Your task to perform on an android device: turn off data saver in the chrome app Image 0: 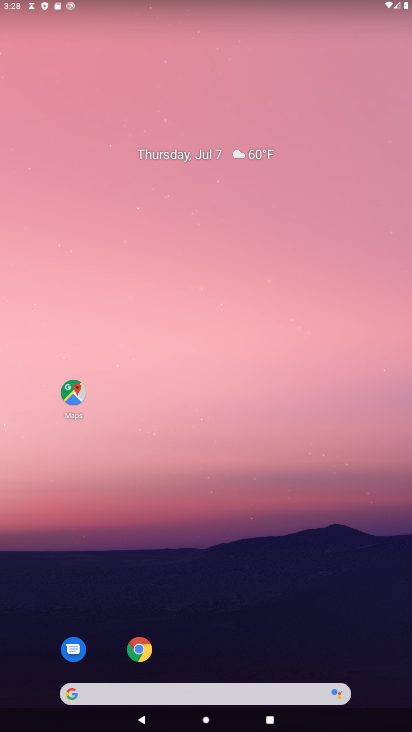
Step 0: click (143, 655)
Your task to perform on an android device: turn off data saver in the chrome app Image 1: 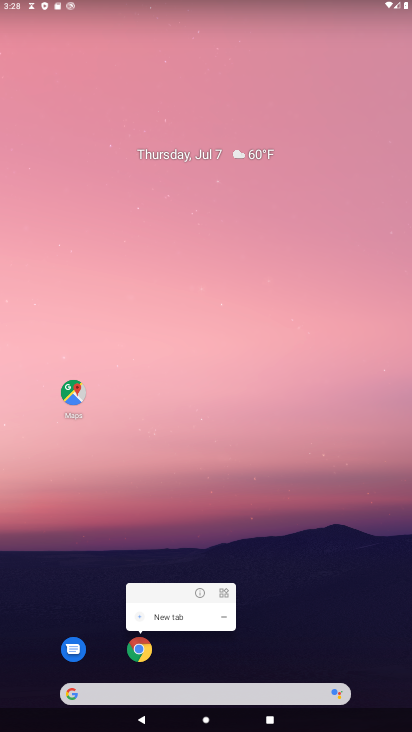
Step 1: click (136, 651)
Your task to perform on an android device: turn off data saver in the chrome app Image 2: 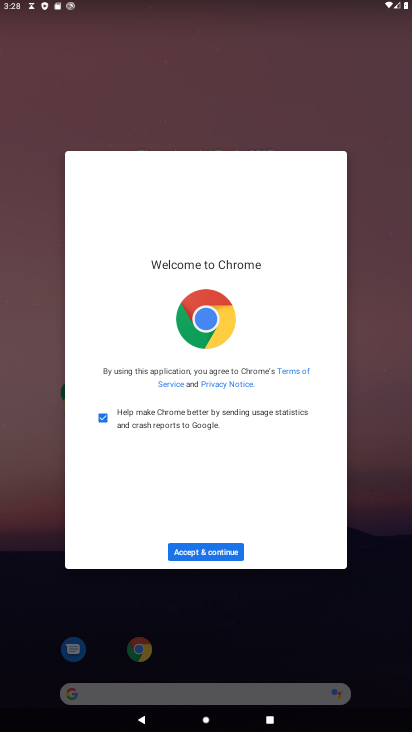
Step 2: click (218, 554)
Your task to perform on an android device: turn off data saver in the chrome app Image 3: 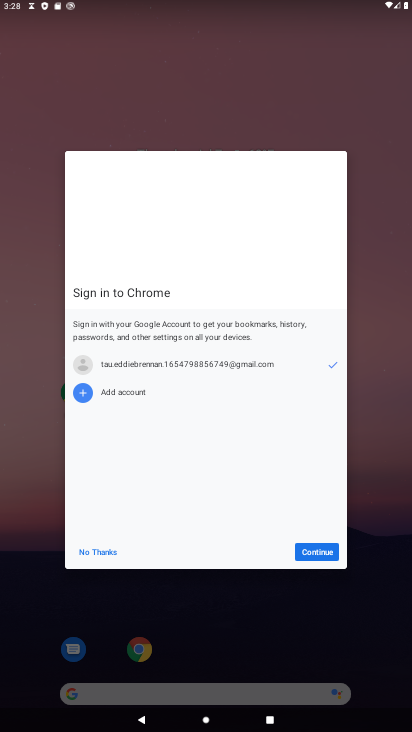
Step 3: click (319, 566)
Your task to perform on an android device: turn off data saver in the chrome app Image 4: 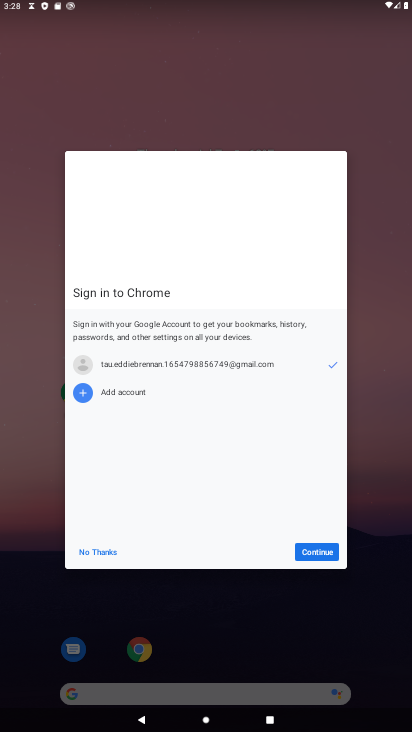
Step 4: click (325, 555)
Your task to perform on an android device: turn off data saver in the chrome app Image 5: 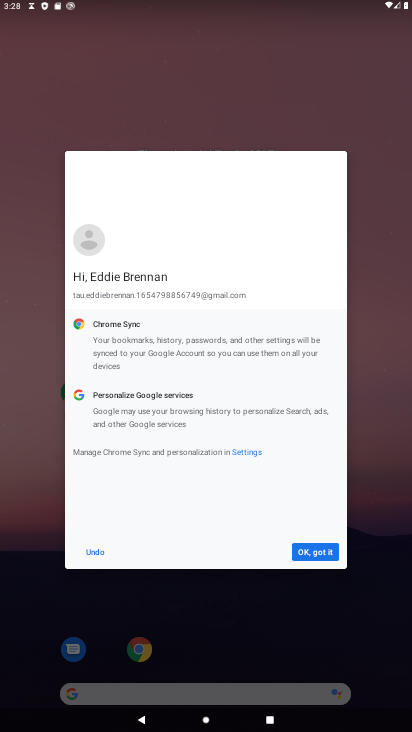
Step 5: click (321, 555)
Your task to perform on an android device: turn off data saver in the chrome app Image 6: 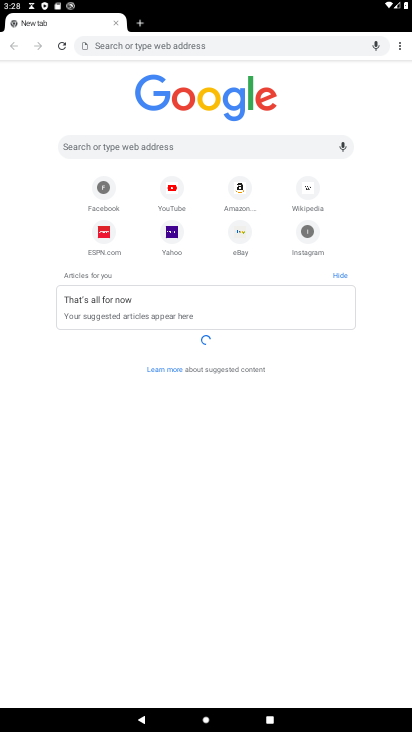
Step 6: drag from (396, 37) to (349, 202)
Your task to perform on an android device: turn off data saver in the chrome app Image 7: 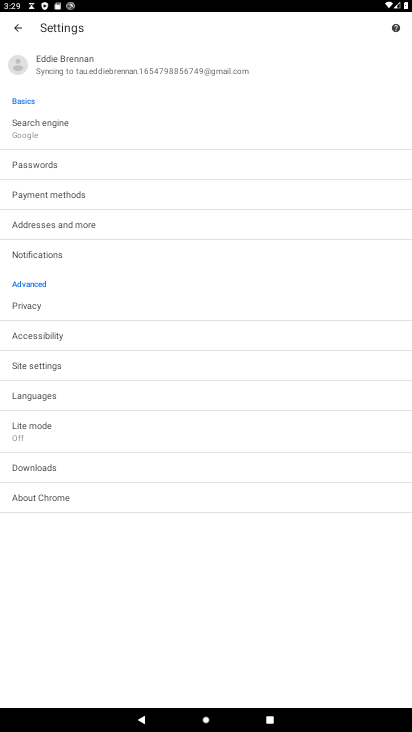
Step 7: click (64, 438)
Your task to perform on an android device: turn off data saver in the chrome app Image 8: 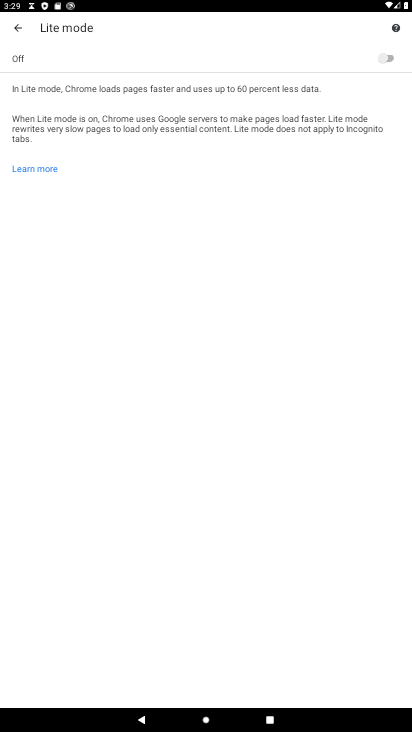
Step 8: task complete